Your task to perform on an android device: turn on showing notifications on the lock screen Image 0: 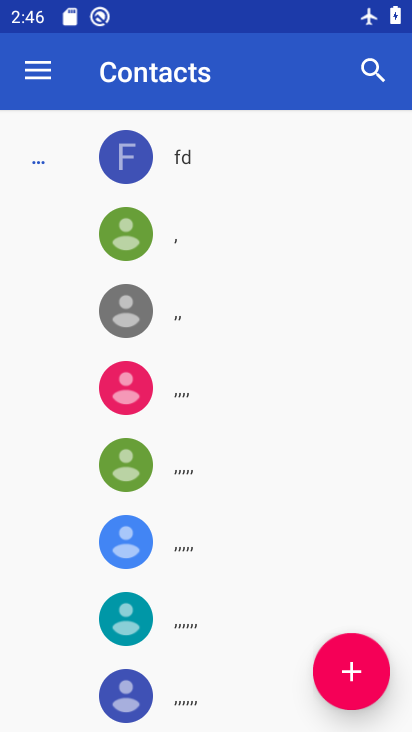
Step 0: press home button
Your task to perform on an android device: turn on showing notifications on the lock screen Image 1: 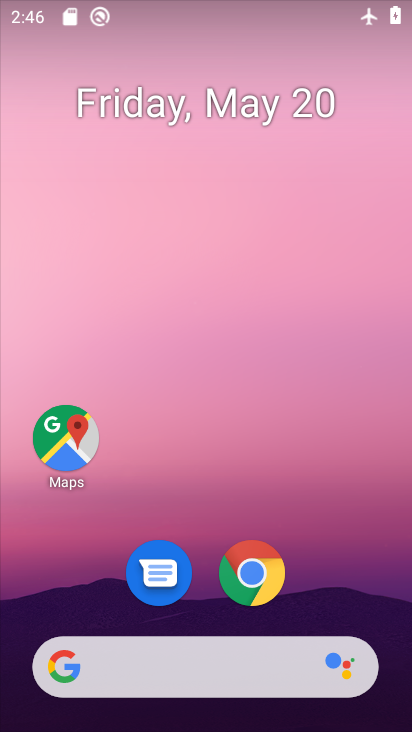
Step 1: drag from (201, 612) to (205, 189)
Your task to perform on an android device: turn on showing notifications on the lock screen Image 2: 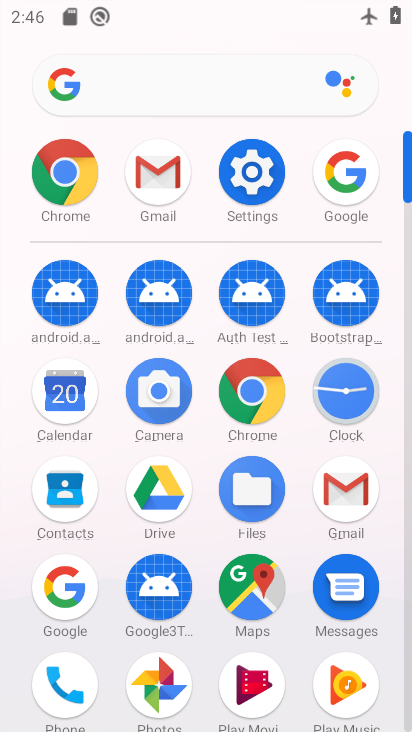
Step 2: click (226, 186)
Your task to perform on an android device: turn on showing notifications on the lock screen Image 3: 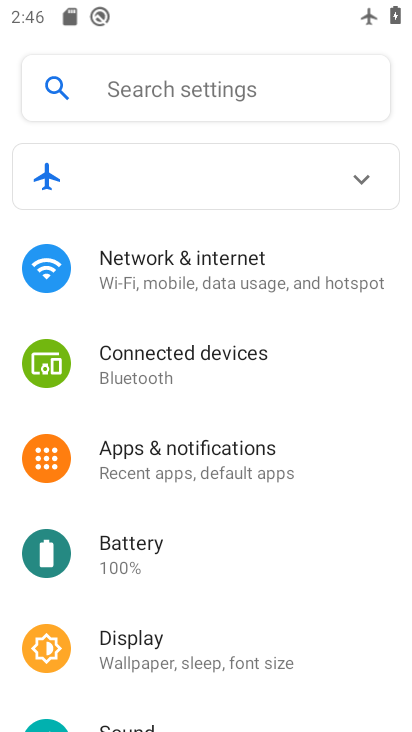
Step 3: click (214, 454)
Your task to perform on an android device: turn on showing notifications on the lock screen Image 4: 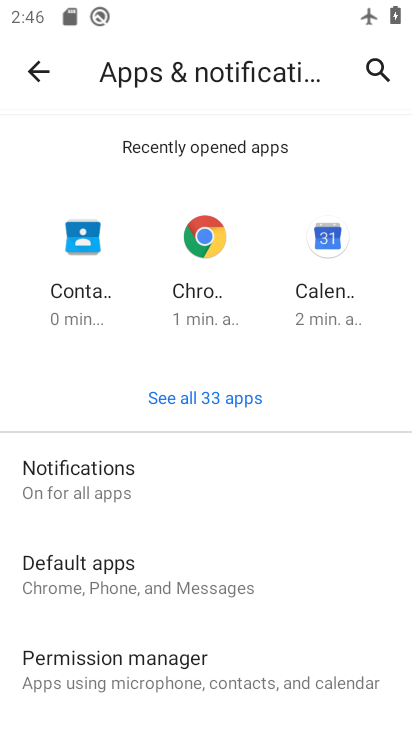
Step 4: click (175, 492)
Your task to perform on an android device: turn on showing notifications on the lock screen Image 5: 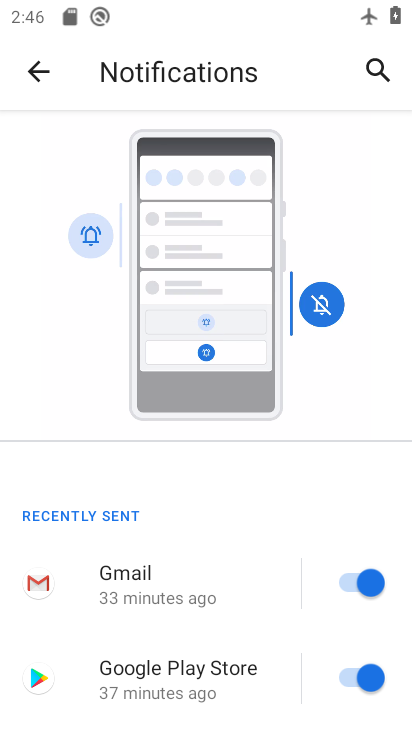
Step 5: drag from (173, 672) to (191, 432)
Your task to perform on an android device: turn on showing notifications on the lock screen Image 6: 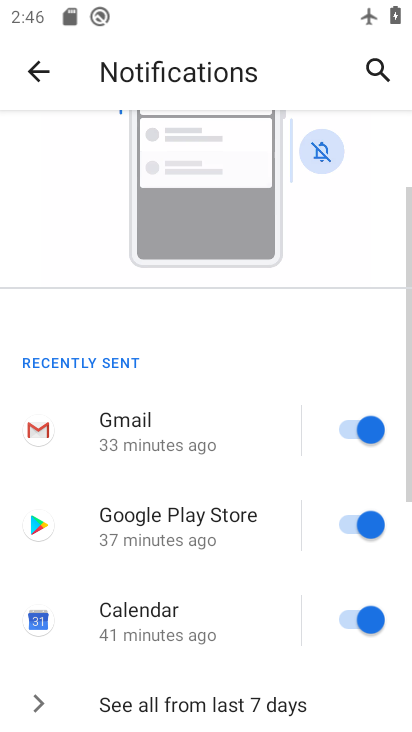
Step 6: drag from (206, 634) to (208, 431)
Your task to perform on an android device: turn on showing notifications on the lock screen Image 7: 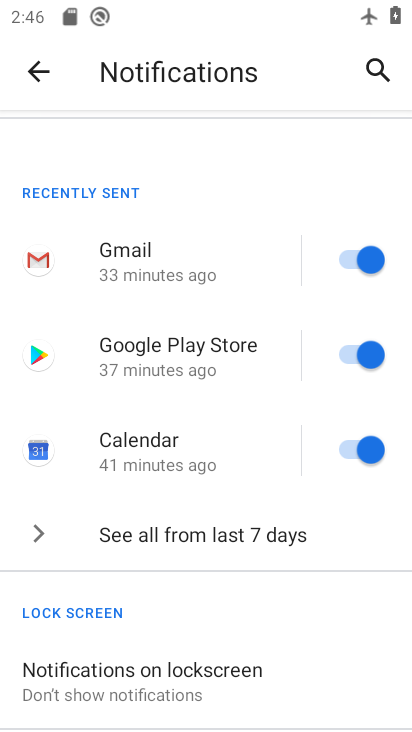
Step 7: drag from (205, 639) to (210, 509)
Your task to perform on an android device: turn on showing notifications on the lock screen Image 8: 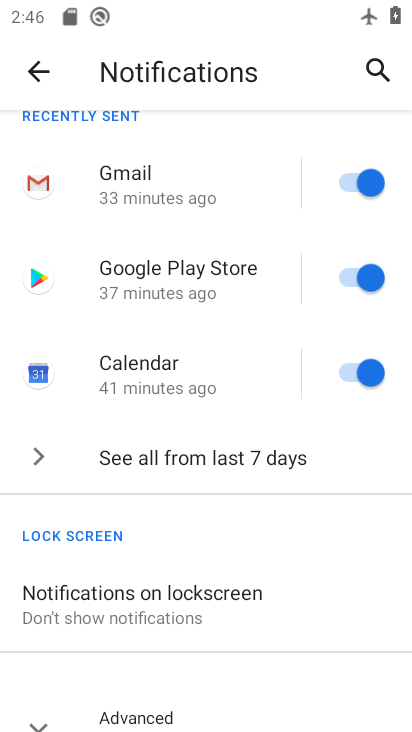
Step 8: click (176, 574)
Your task to perform on an android device: turn on showing notifications on the lock screen Image 9: 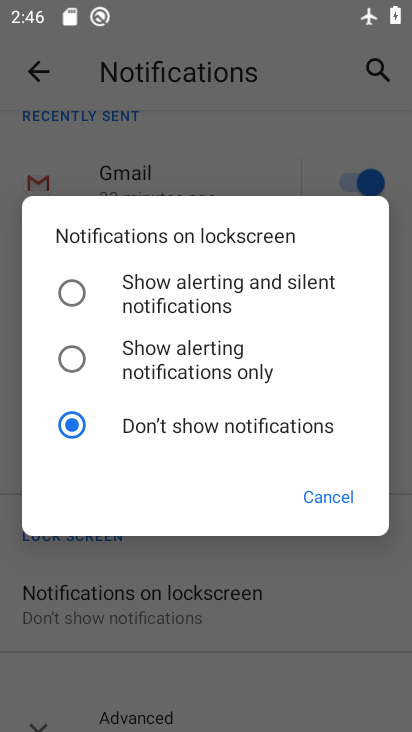
Step 9: click (191, 301)
Your task to perform on an android device: turn on showing notifications on the lock screen Image 10: 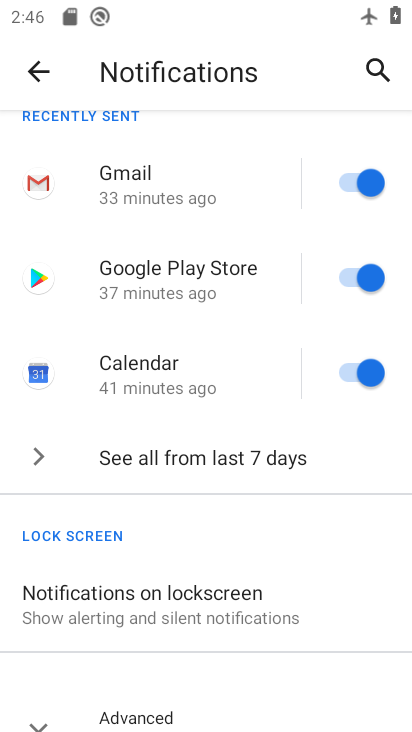
Step 10: task complete